Your task to perform on an android device: Go to ESPN.com Image 0: 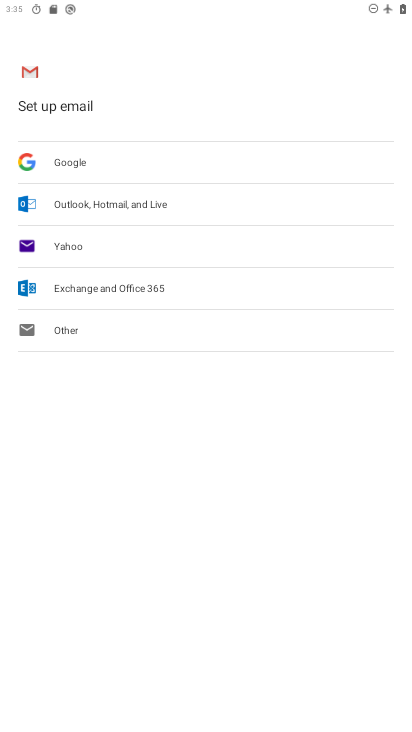
Step 0: press home button
Your task to perform on an android device: Go to ESPN.com Image 1: 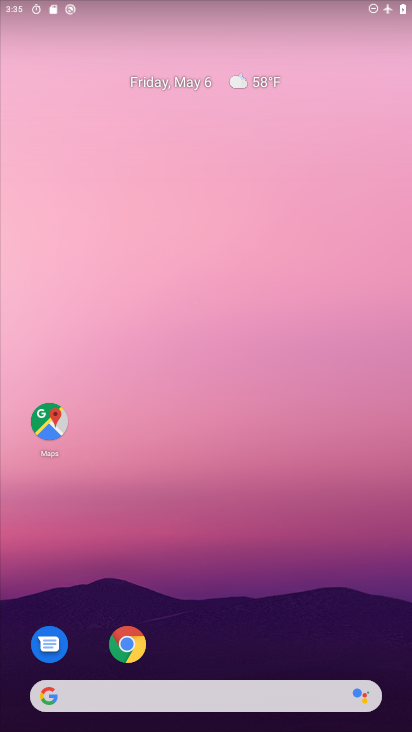
Step 1: click (131, 644)
Your task to perform on an android device: Go to ESPN.com Image 2: 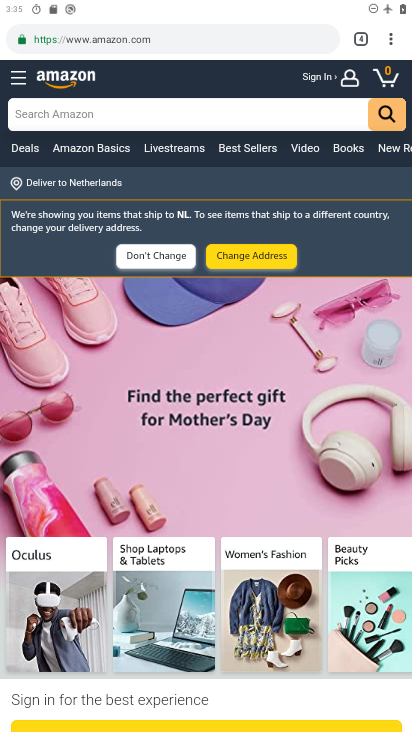
Step 2: drag from (392, 40) to (247, 72)
Your task to perform on an android device: Go to ESPN.com Image 3: 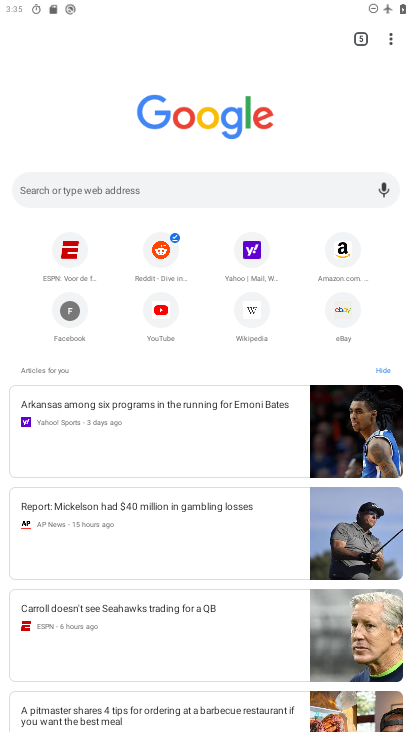
Step 3: click (180, 185)
Your task to perform on an android device: Go to ESPN.com Image 4: 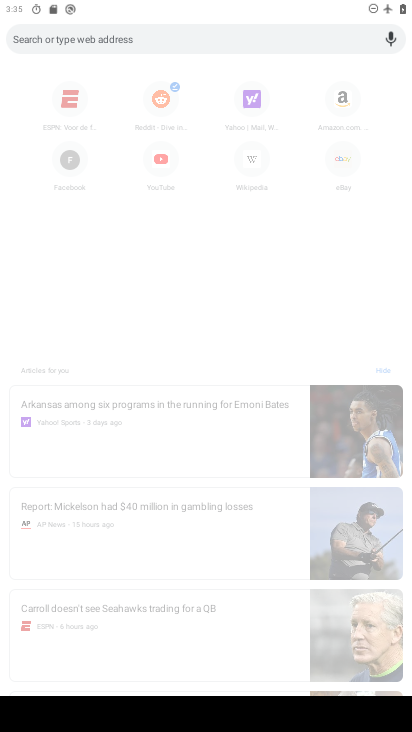
Step 4: type "ESPN.com"
Your task to perform on an android device: Go to ESPN.com Image 5: 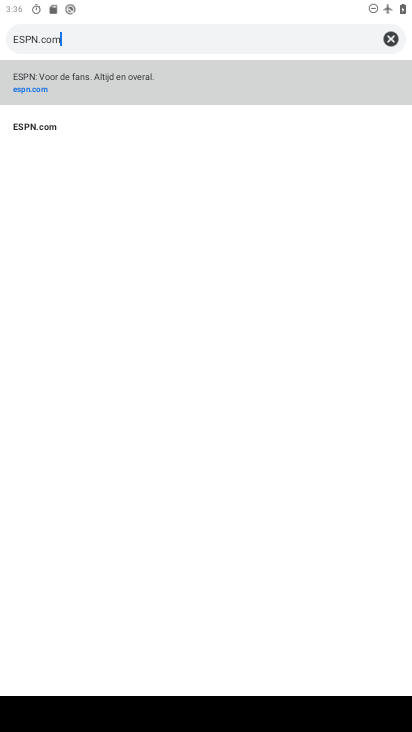
Step 5: click (36, 128)
Your task to perform on an android device: Go to ESPN.com Image 6: 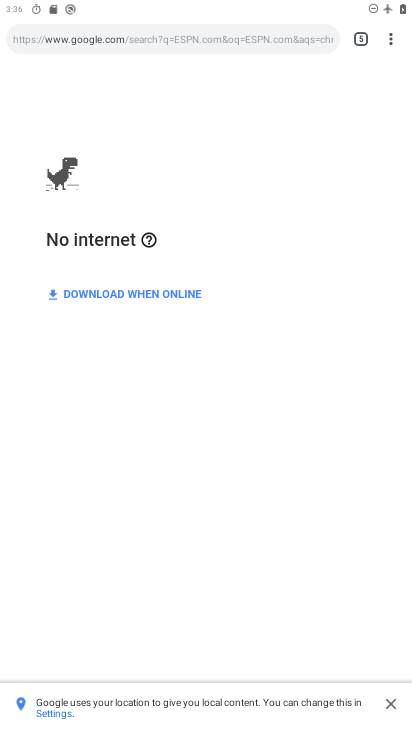
Step 6: task complete